Your task to perform on an android device: Open display settings Image 0: 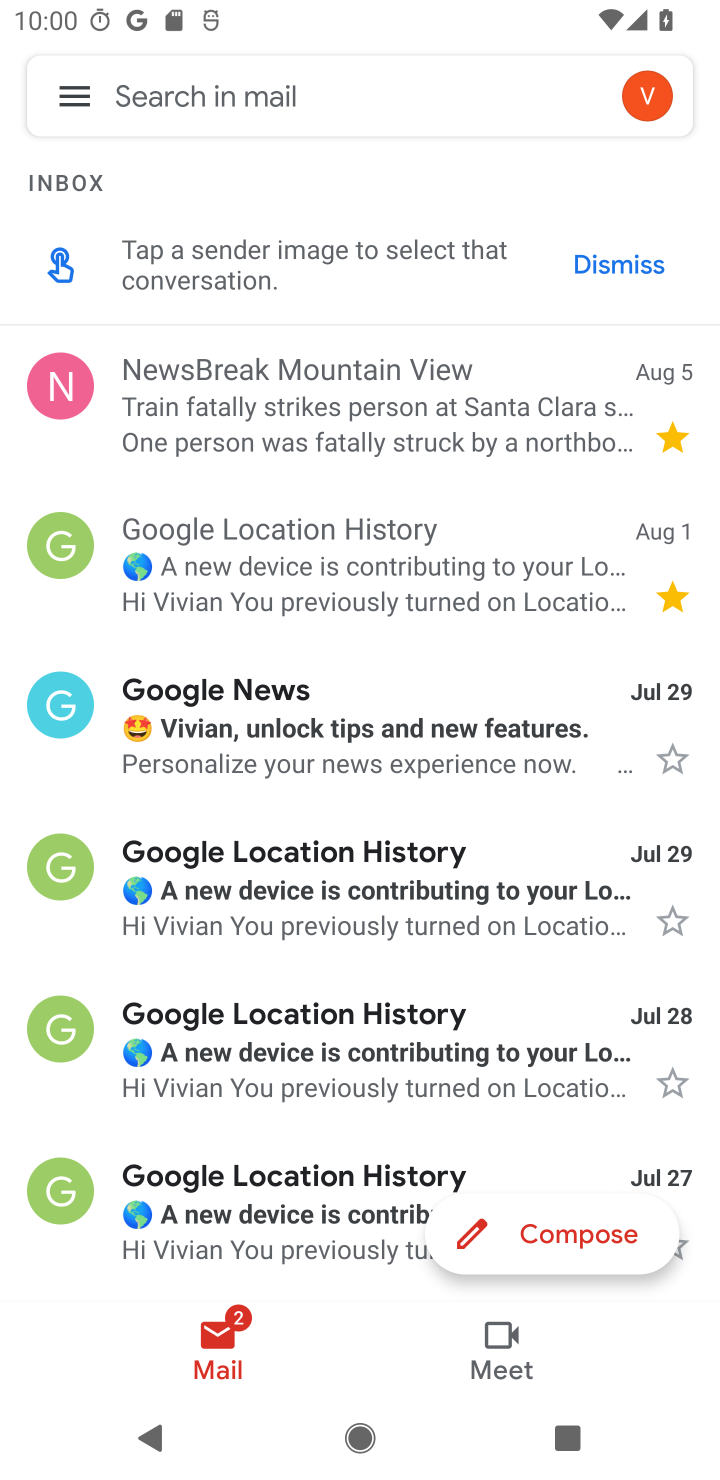
Step 0: press home button
Your task to perform on an android device: Open display settings Image 1: 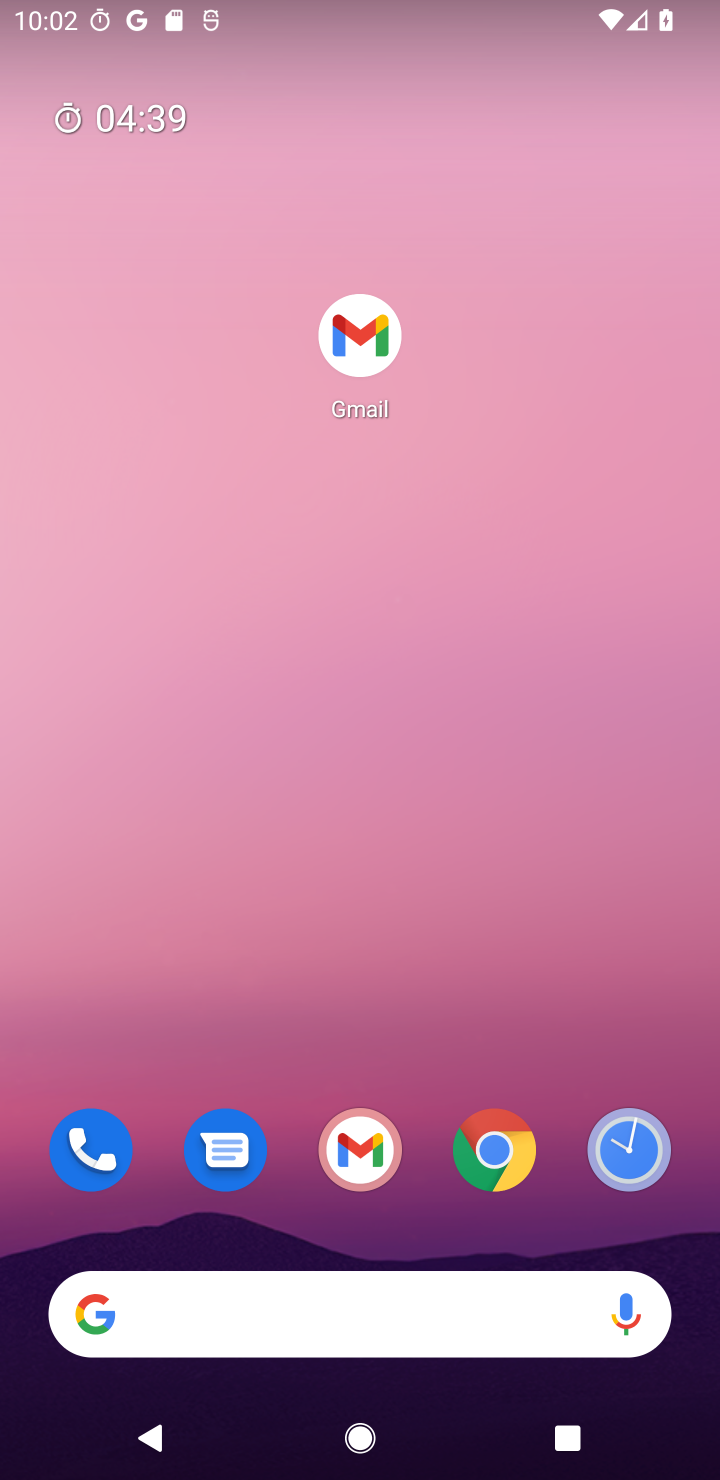
Step 1: drag from (74, 885) to (713, 952)
Your task to perform on an android device: Open display settings Image 2: 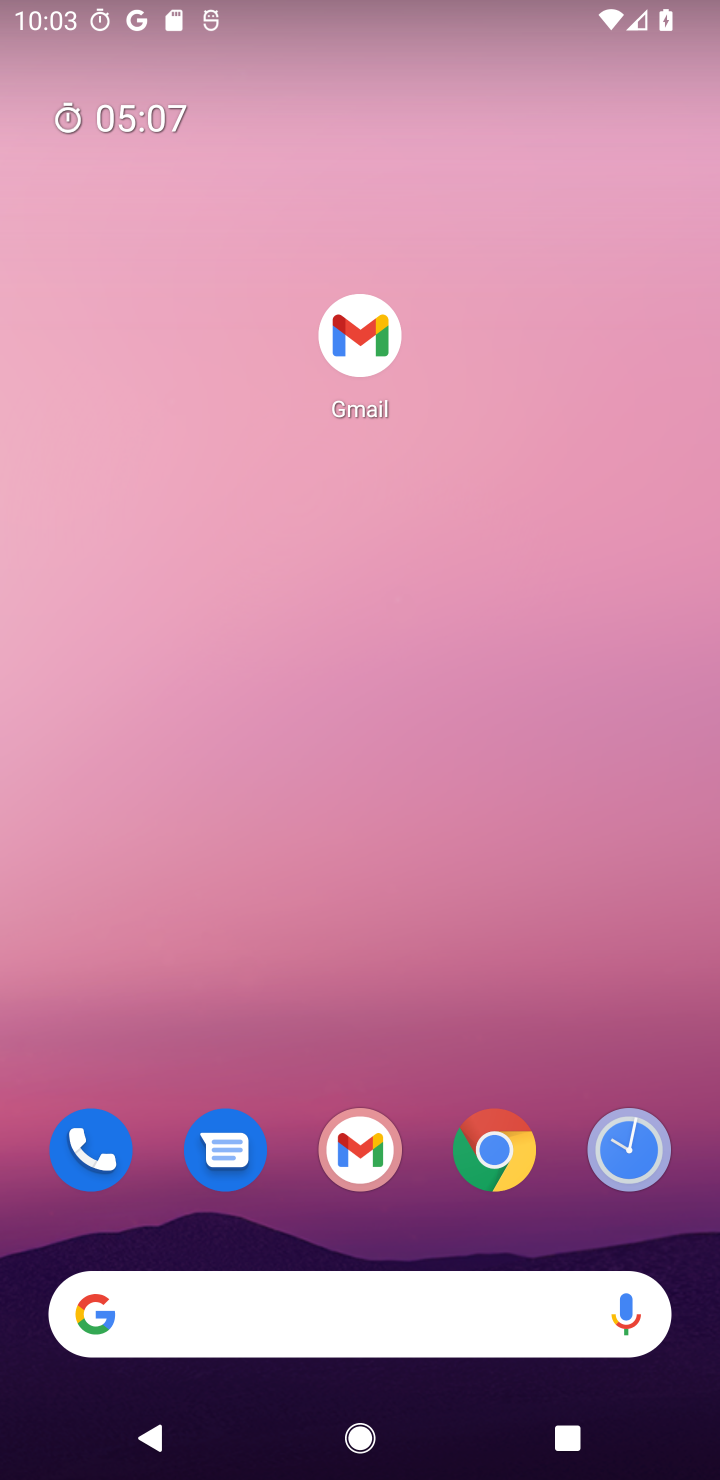
Step 2: drag from (452, 1299) to (275, 507)
Your task to perform on an android device: Open display settings Image 3: 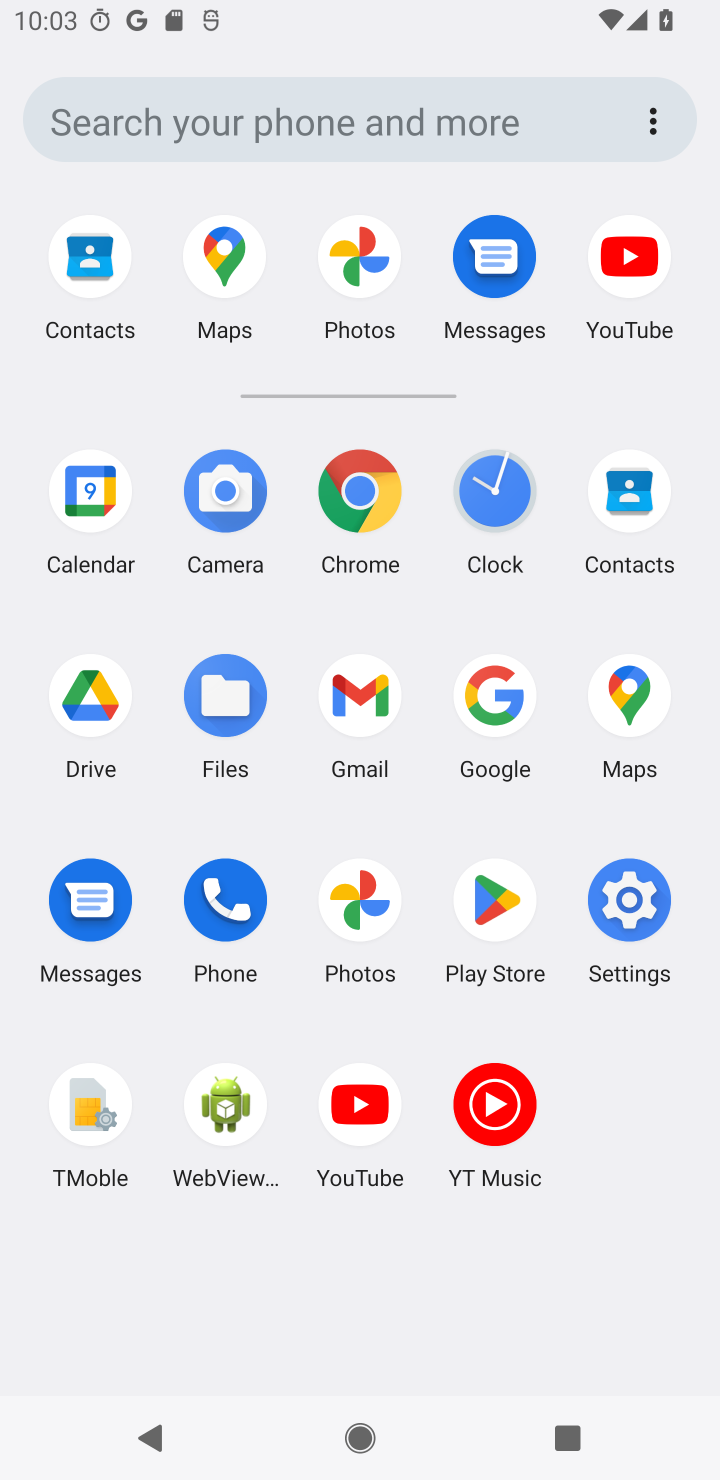
Step 3: click (619, 911)
Your task to perform on an android device: Open display settings Image 4: 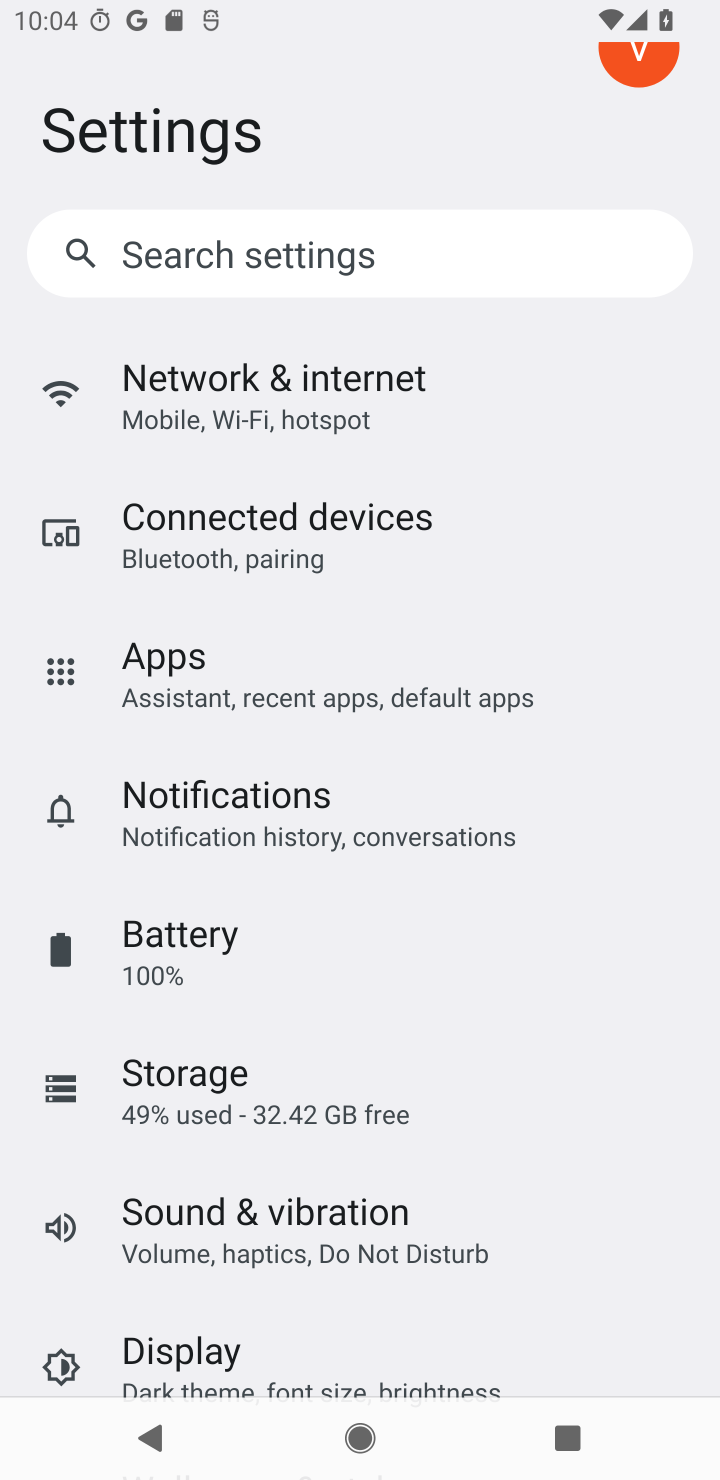
Step 4: click (273, 1329)
Your task to perform on an android device: Open display settings Image 5: 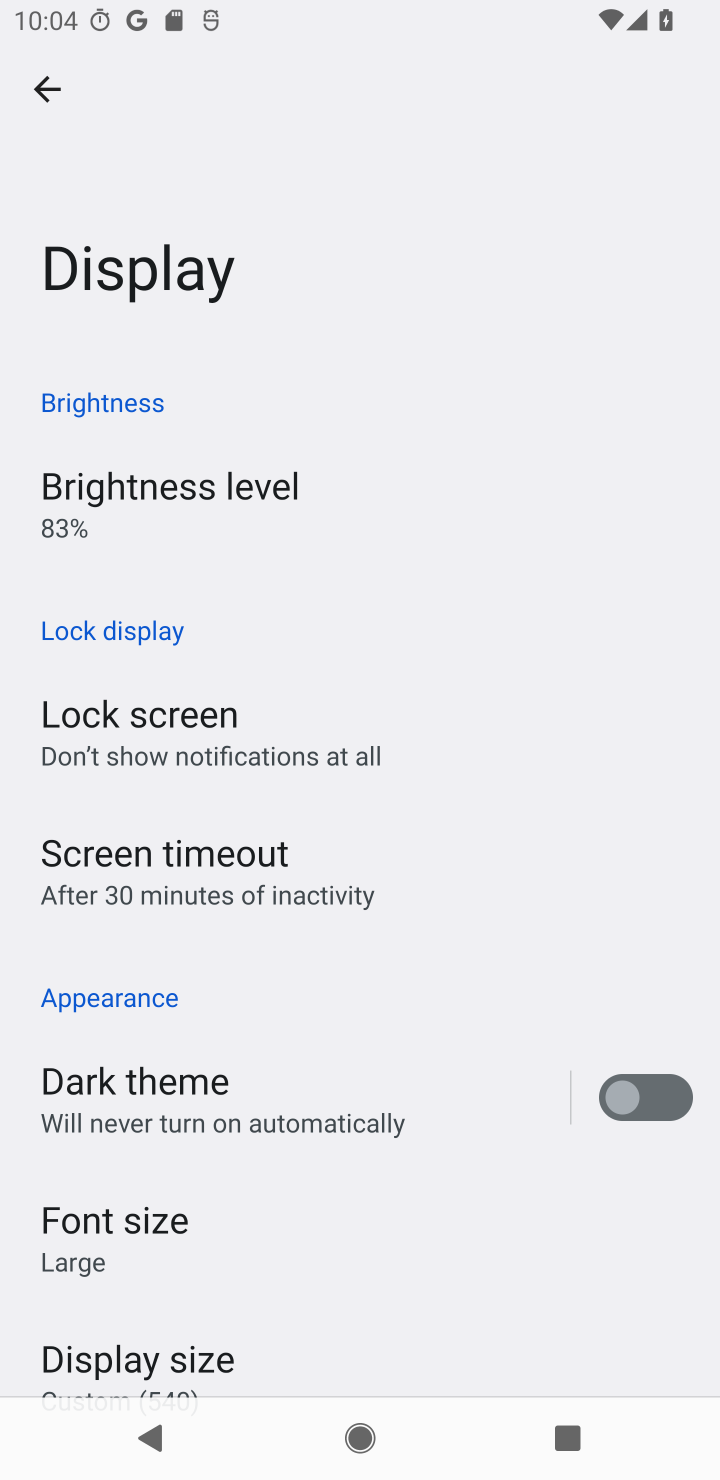
Step 5: task complete